Your task to perform on an android device: Go to Google Image 0: 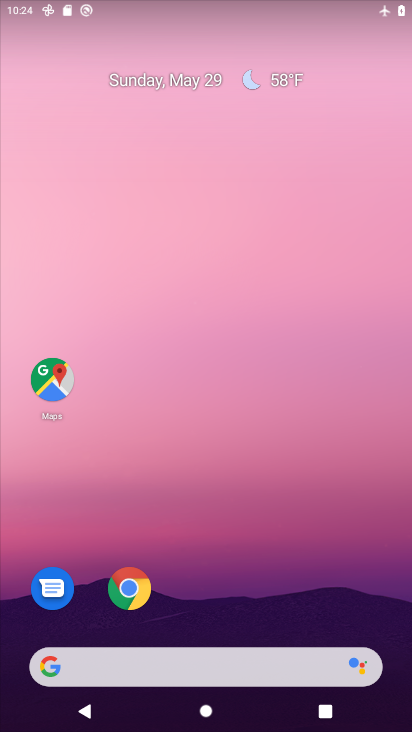
Step 0: click (177, 21)
Your task to perform on an android device: Go to Google Image 1: 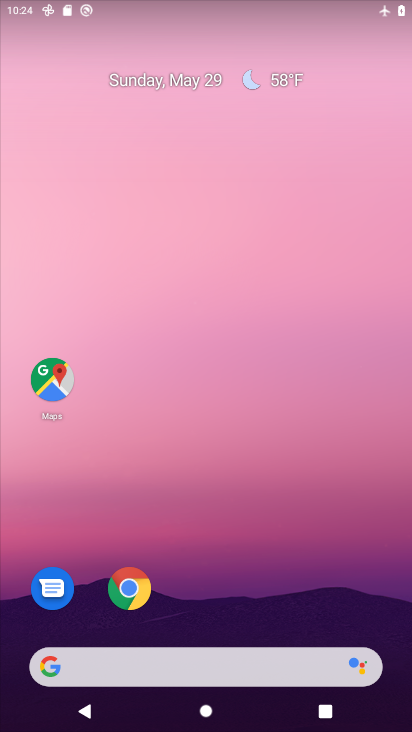
Step 1: drag from (269, 682) to (152, 91)
Your task to perform on an android device: Go to Google Image 2: 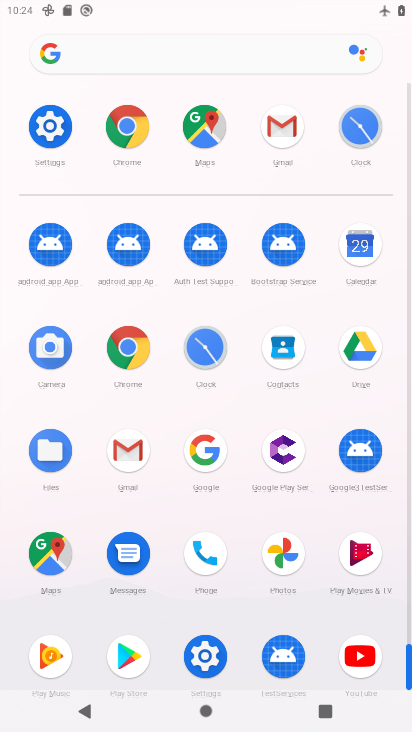
Step 2: click (195, 458)
Your task to perform on an android device: Go to Google Image 3: 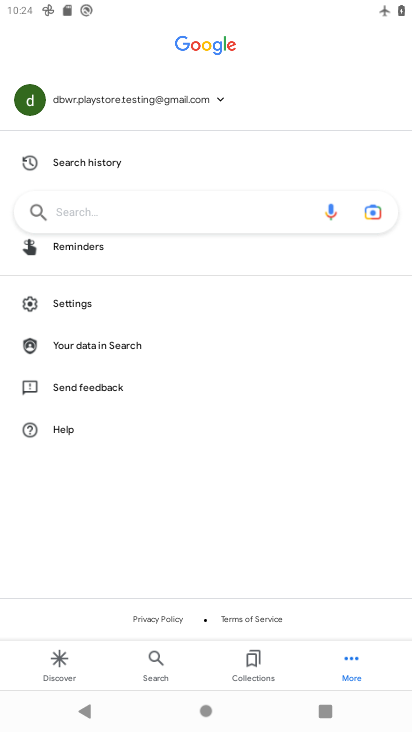
Step 3: task complete